Your task to perform on an android device: uninstall "DuckDuckGo Privacy Browser" Image 0: 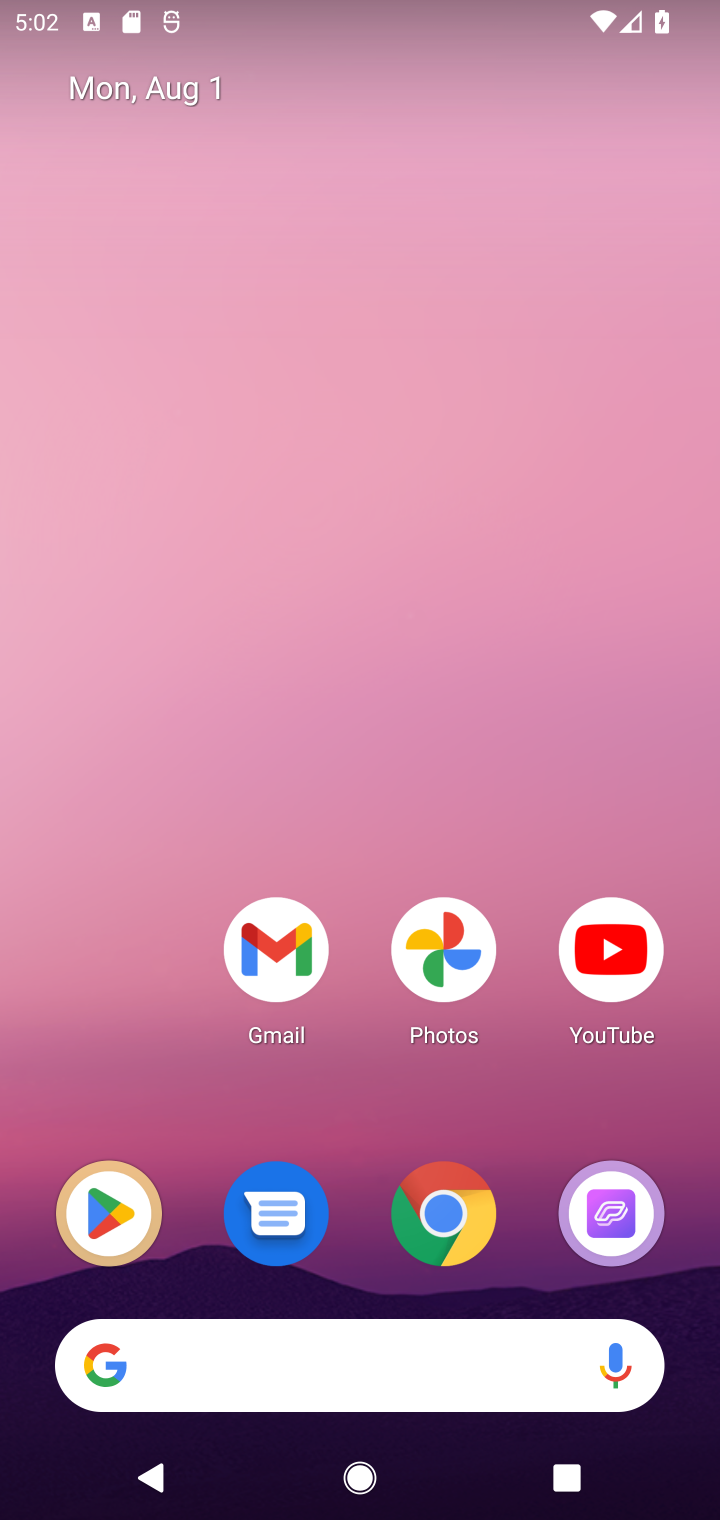
Step 0: drag from (527, 335) to (464, 7)
Your task to perform on an android device: uninstall "DuckDuckGo Privacy Browser" Image 1: 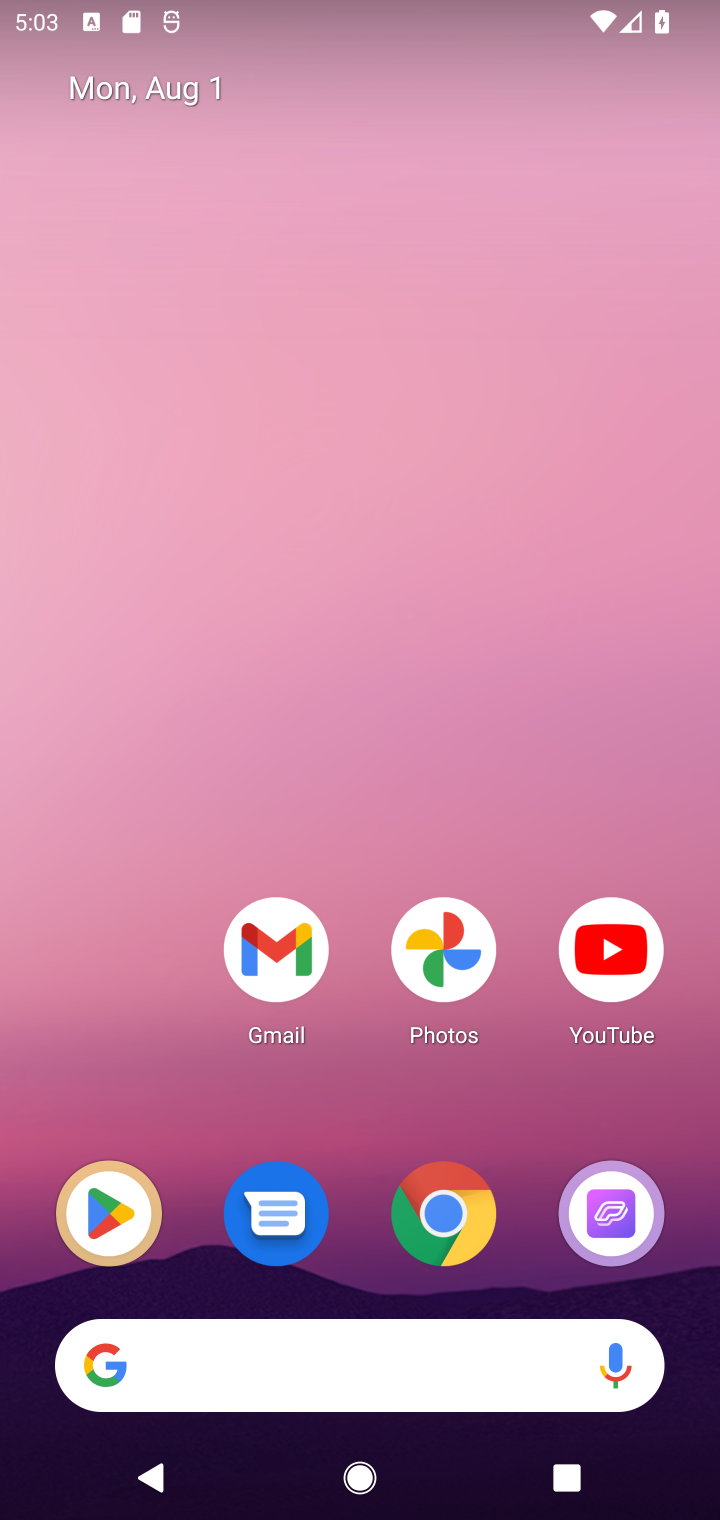
Step 1: press home button
Your task to perform on an android device: uninstall "DuckDuckGo Privacy Browser" Image 2: 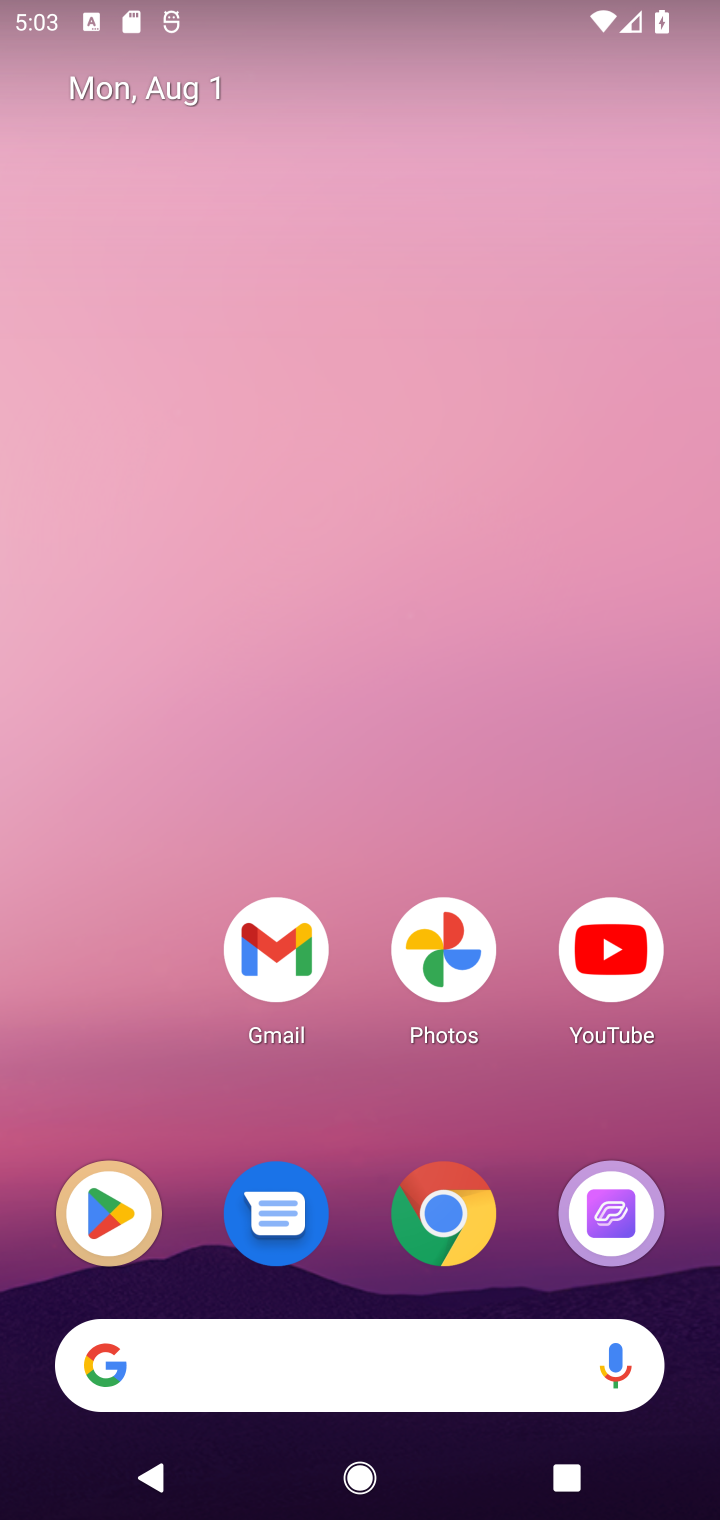
Step 2: drag from (511, 723) to (501, 40)
Your task to perform on an android device: uninstall "DuckDuckGo Privacy Browser" Image 3: 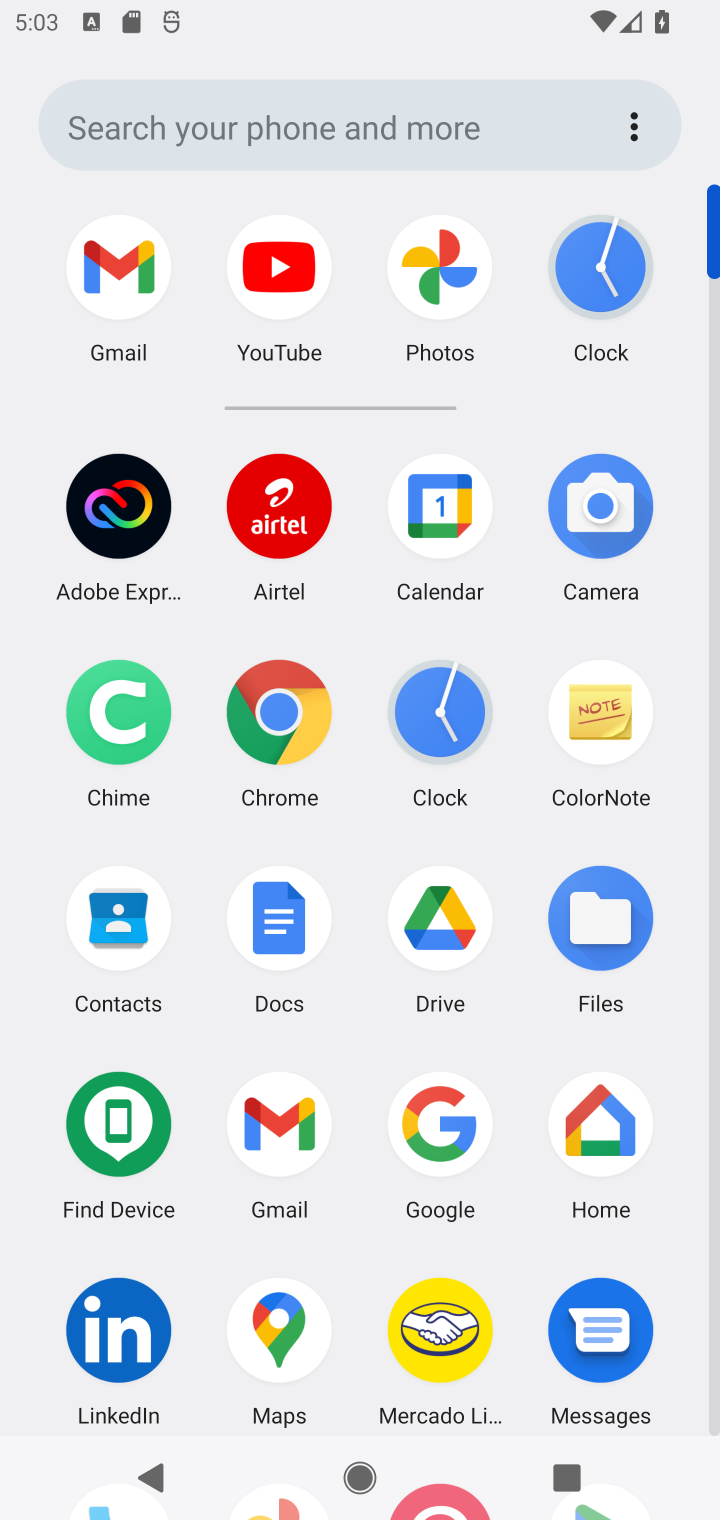
Step 3: drag from (534, 1204) to (518, 458)
Your task to perform on an android device: uninstall "DuckDuckGo Privacy Browser" Image 4: 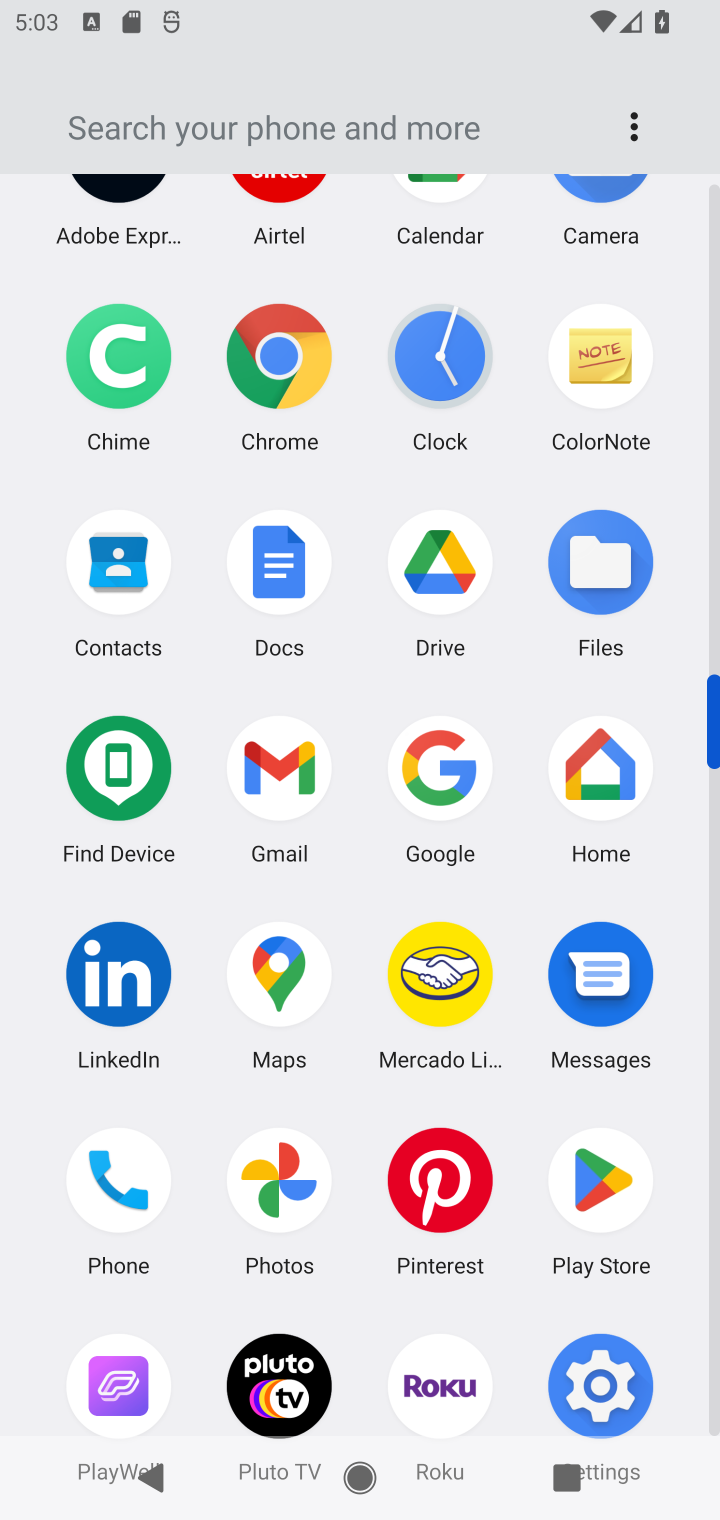
Step 4: click (592, 1179)
Your task to perform on an android device: uninstall "DuckDuckGo Privacy Browser" Image 5: 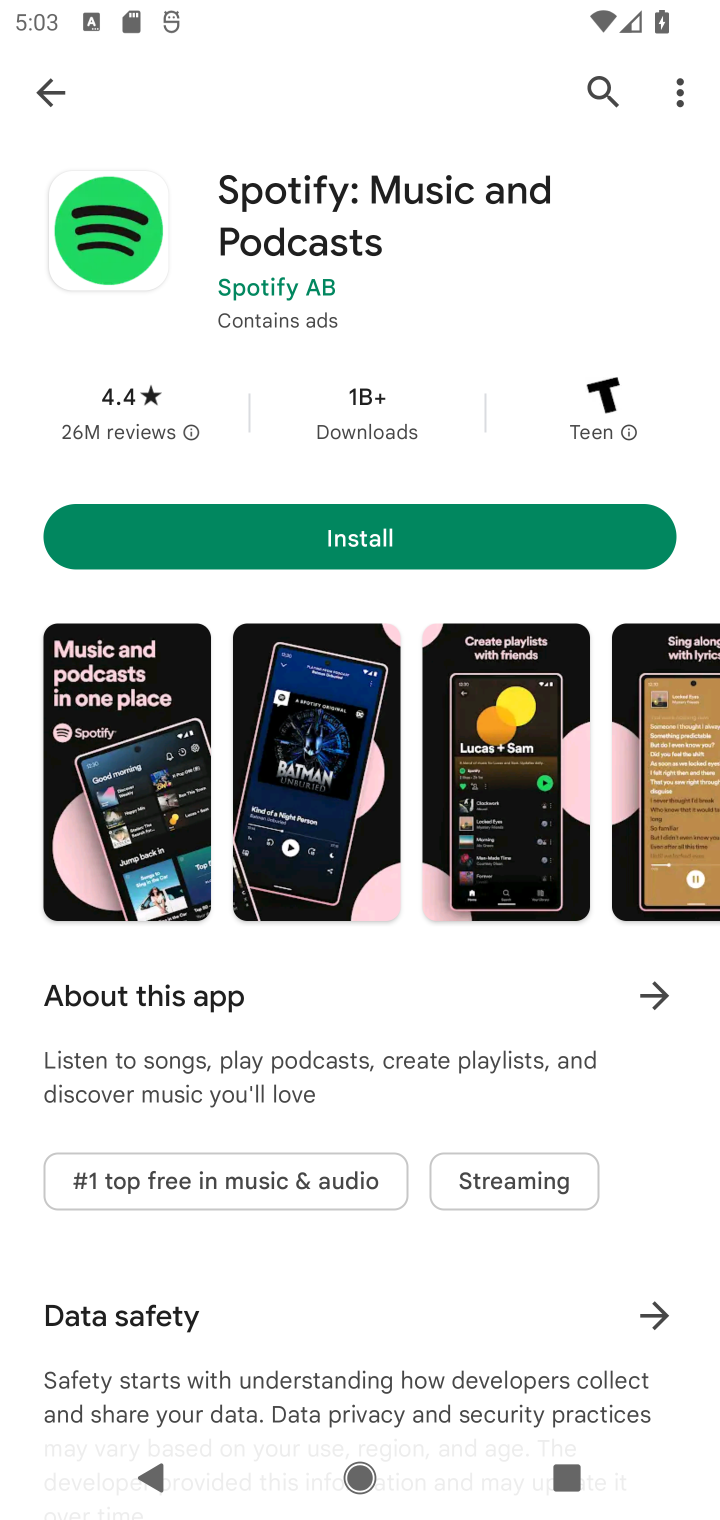
Step 5: click (596, 80)
Your task to perform on an android device: uninstall "DuckDuckGo Privacy Browser" Image 6: 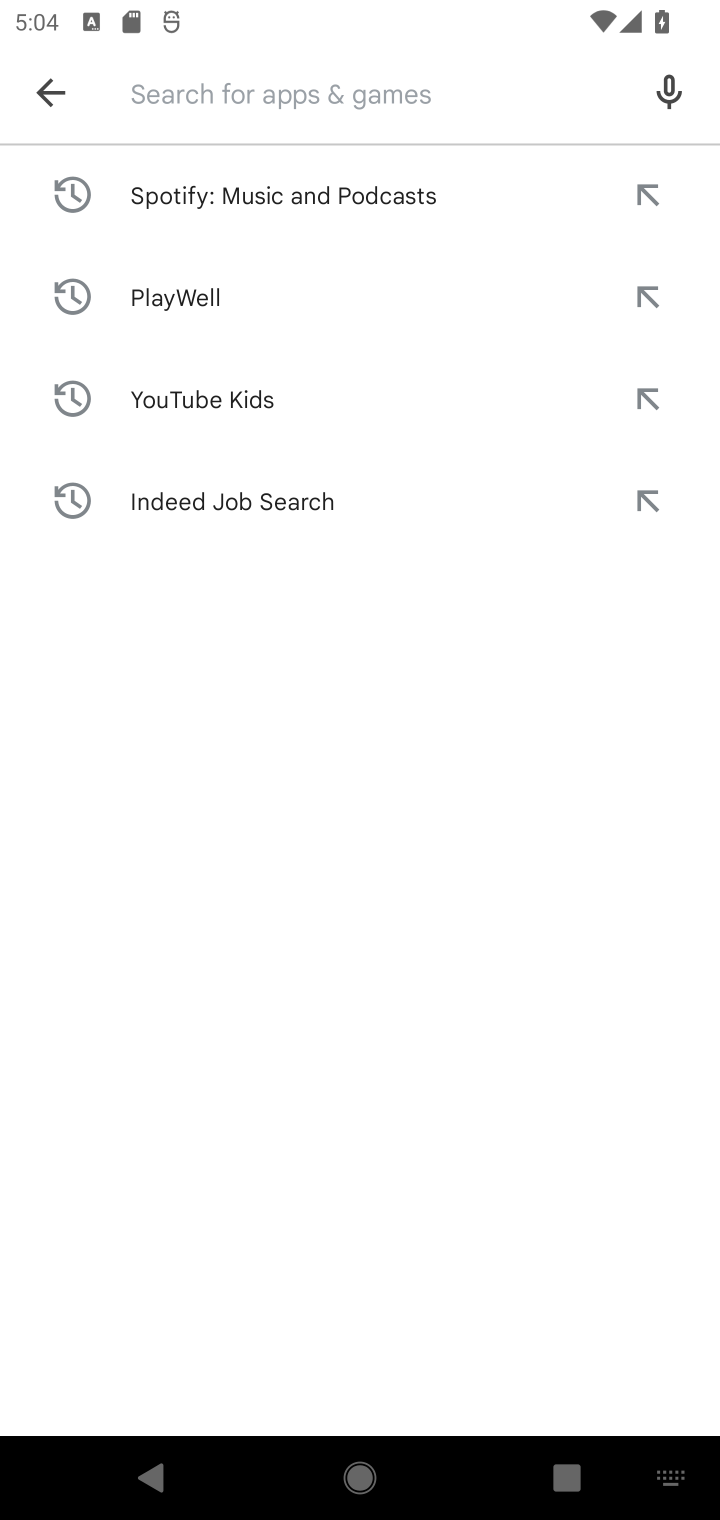
Step 6: type "DuckDuckGo Privacy Browser"
Your task to perform on an android device: uninstall "DuckDuckGo Privacy Browser" Image 7: 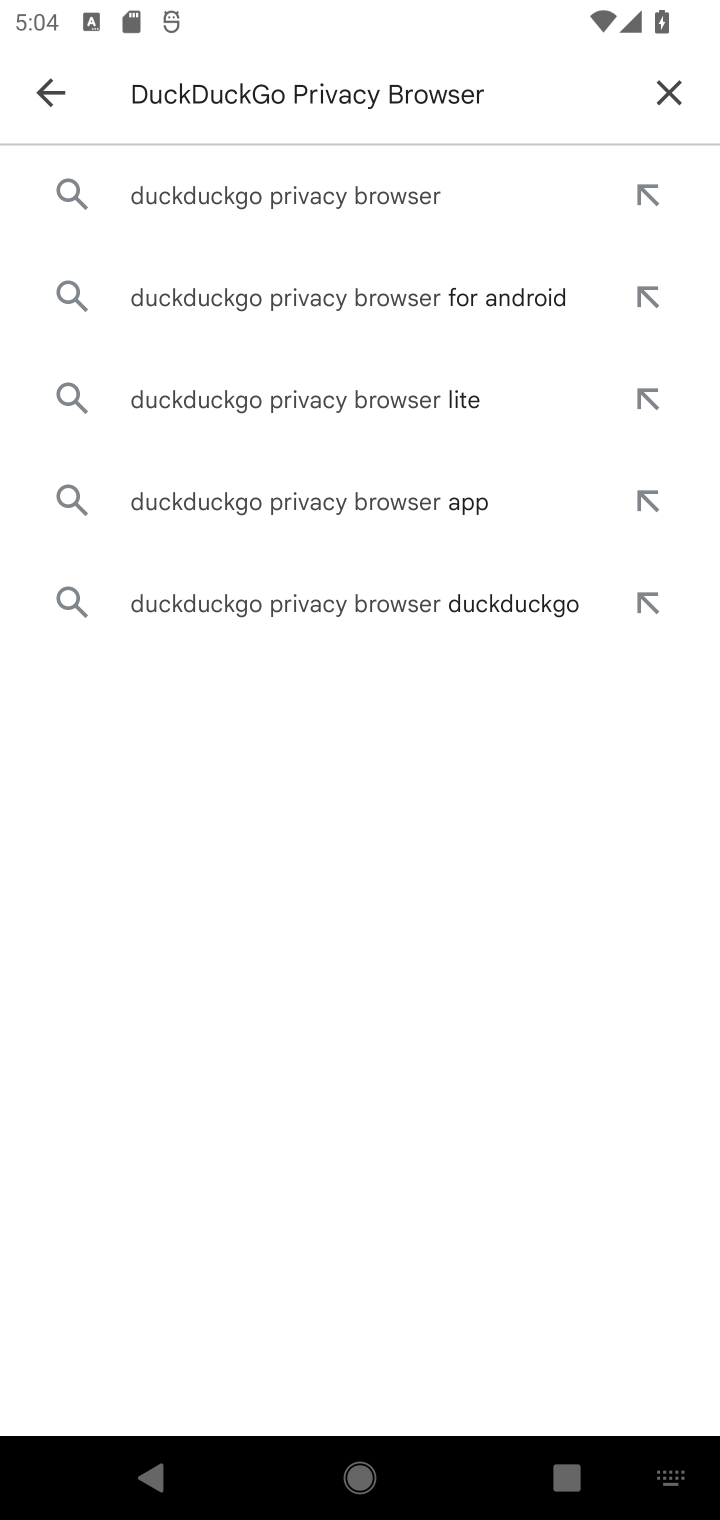
Step 7: press enter
Your task to perform on an android device: uninstall "DuckDuckGo Privacy Browser" Image 8: 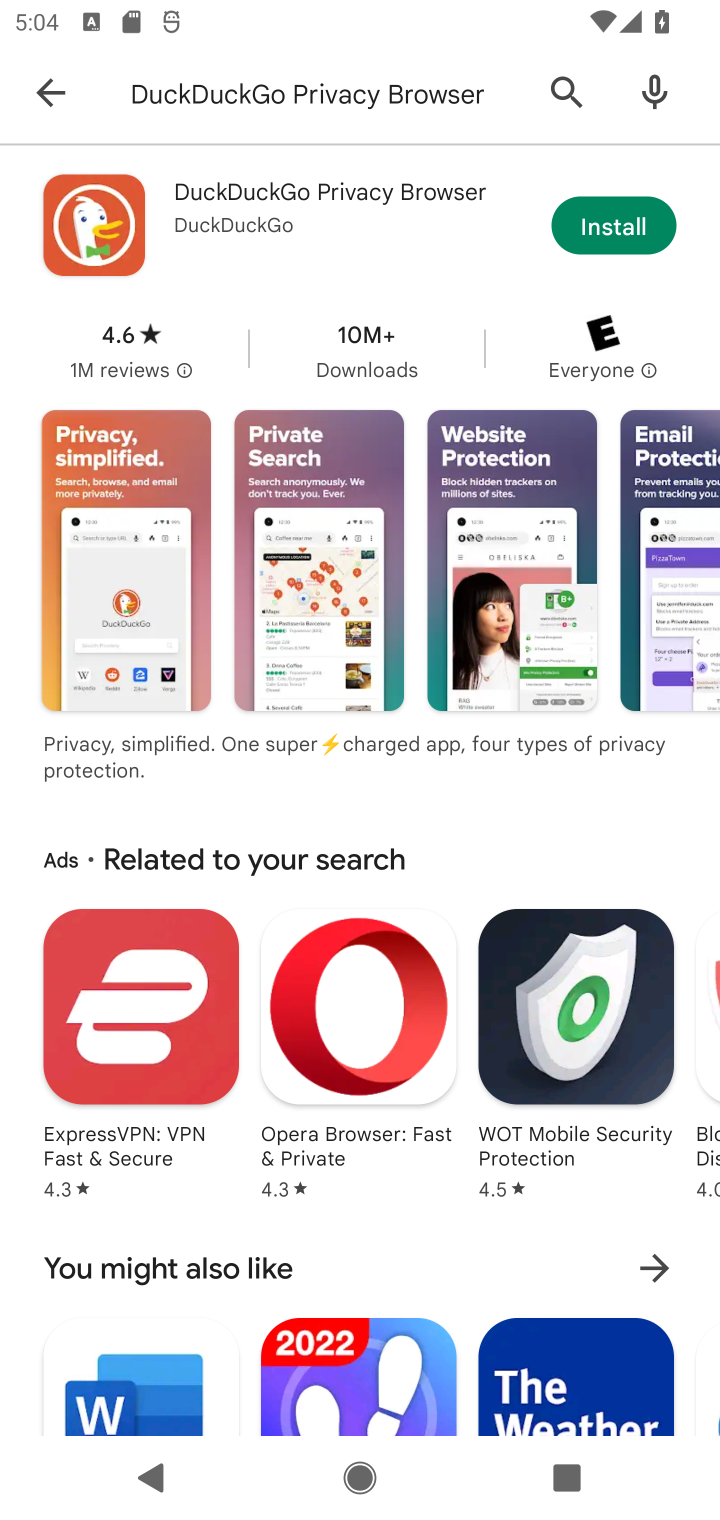
Step 8: task complete